Your task to perform on an android device: Go to wifi settings Image 0: 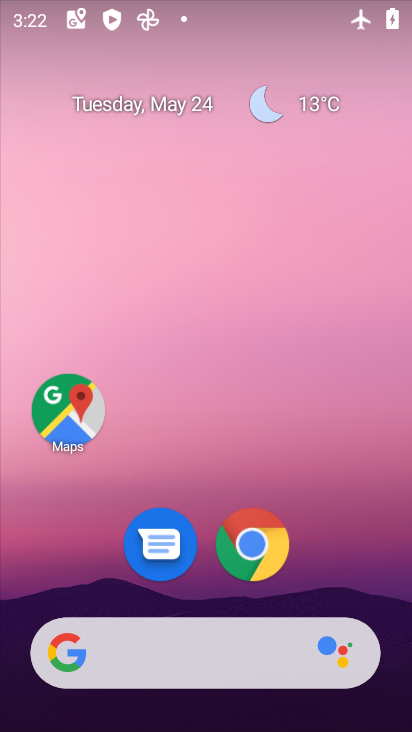
Step 0: drag from (344, 563) to (300, 14)
Your task to perform on an android device: Go to wifi settings Image 1: 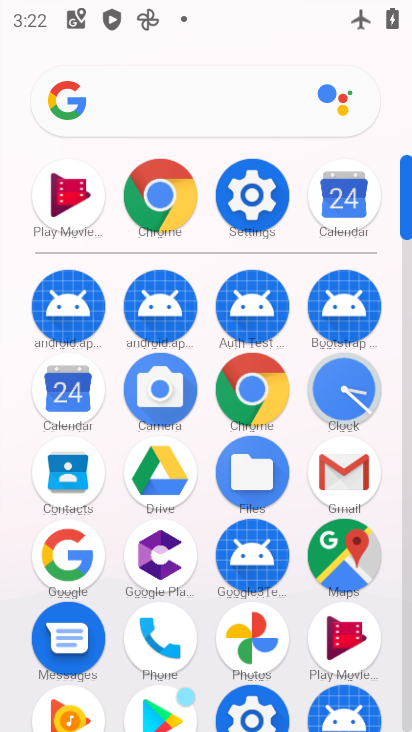
Step 1: click (260, 208)
Your task to perform on an android device: Go to wifi settings Image 2: 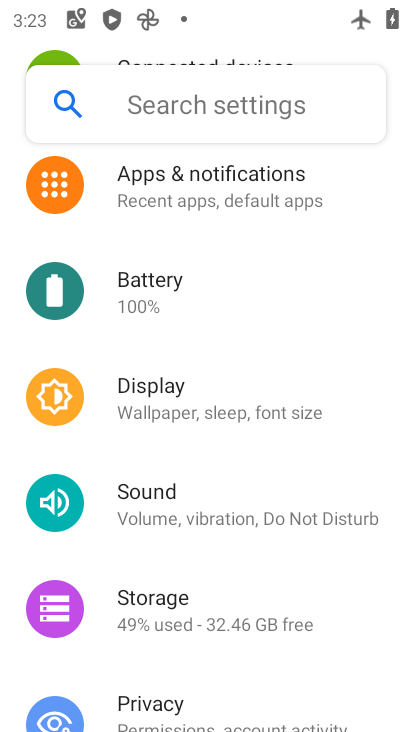
Step 2: drag from (260, 194) to (300, 620)
Your task to perform on an android device: Go to wifi settings Image 3: 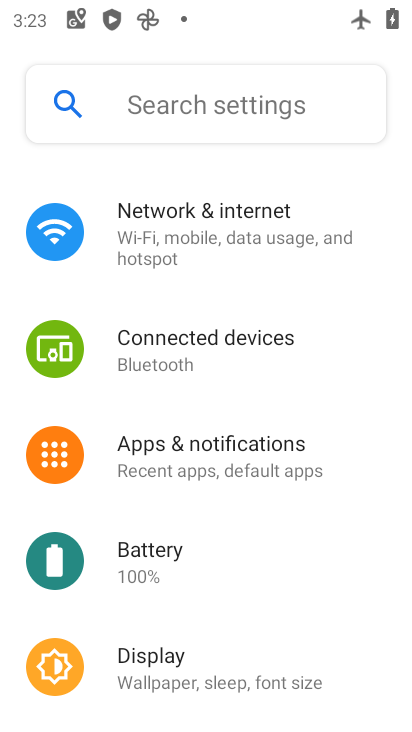
Step 3: drag from (227, 256) to (282, 601)
Your task to perform on an android device: Go to wifi settings Image 4: 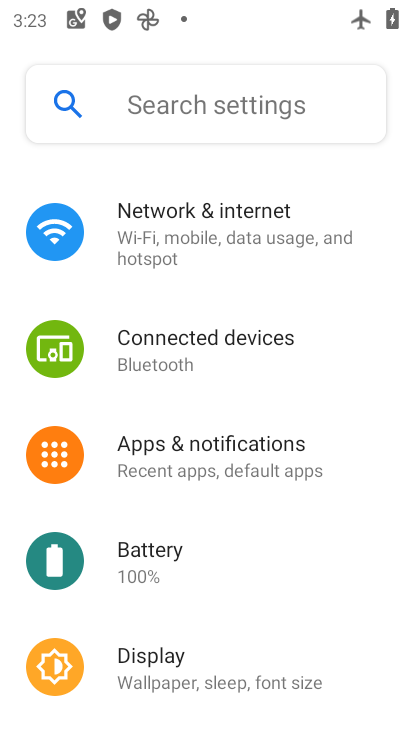
Step 4: click (187, 230)
Your task to perform on an android device: Go to wifi settings Image 5: 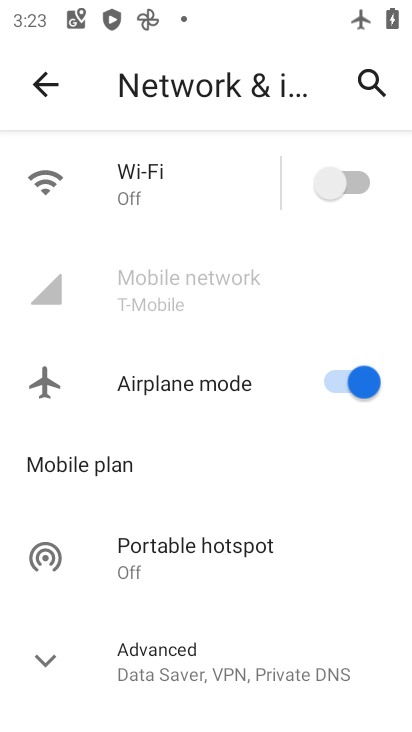
Step 5: click (158, 191)
Your task to perform on an android device: Go to wifi settings Image 6: 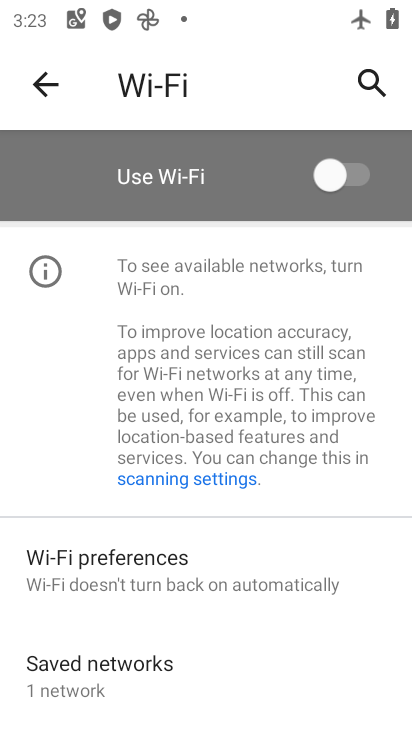
Step 6: task complete